Your task to perform on an android device: When is my next appointment? Image 0: 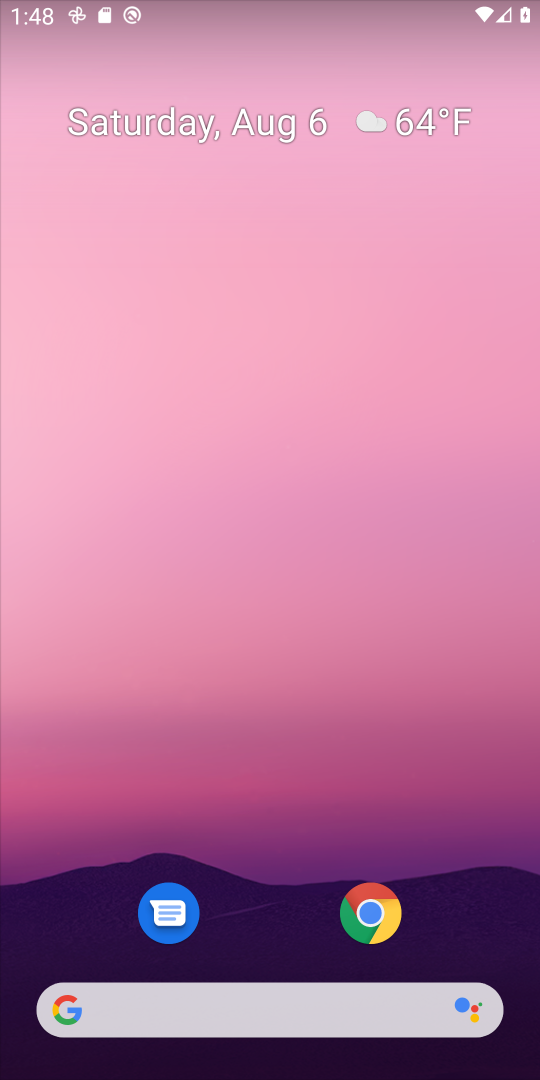
Step 0: press home button
Your task to perform on an android device: When is my next appointment? Image 1: 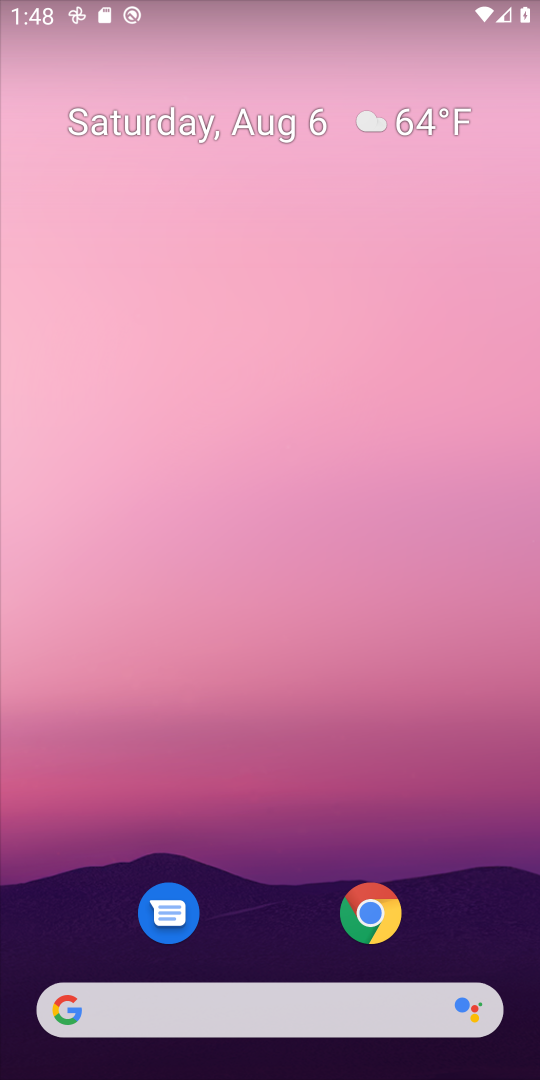
Step 1: drag from (285, 927) to (318, 284)
Your task to perform on an android device: When is my next appointment? Image 2: 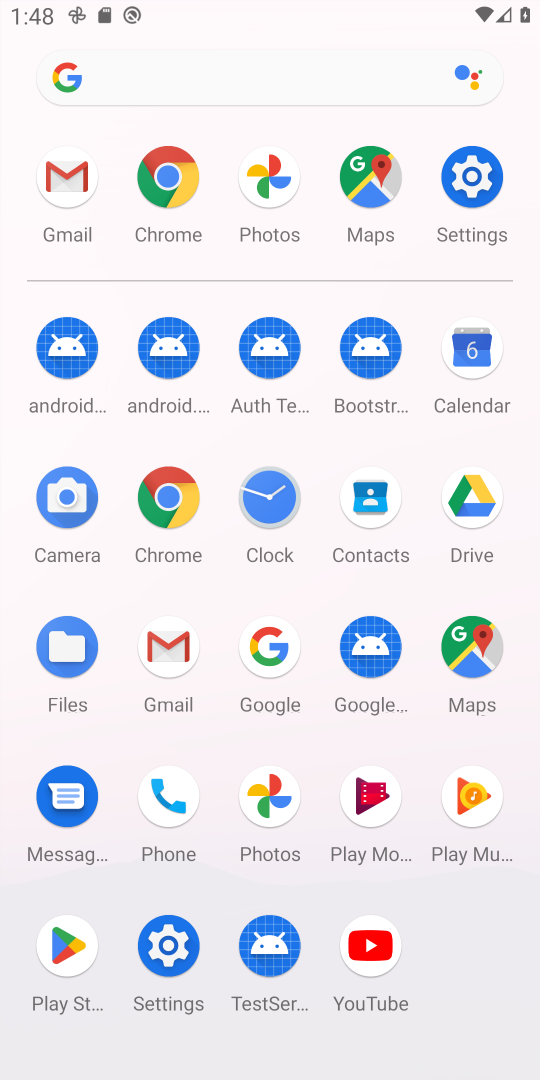
Step 2: click (476, 350)
Your task to perform on an android device: When is my next appointment? Image 3: 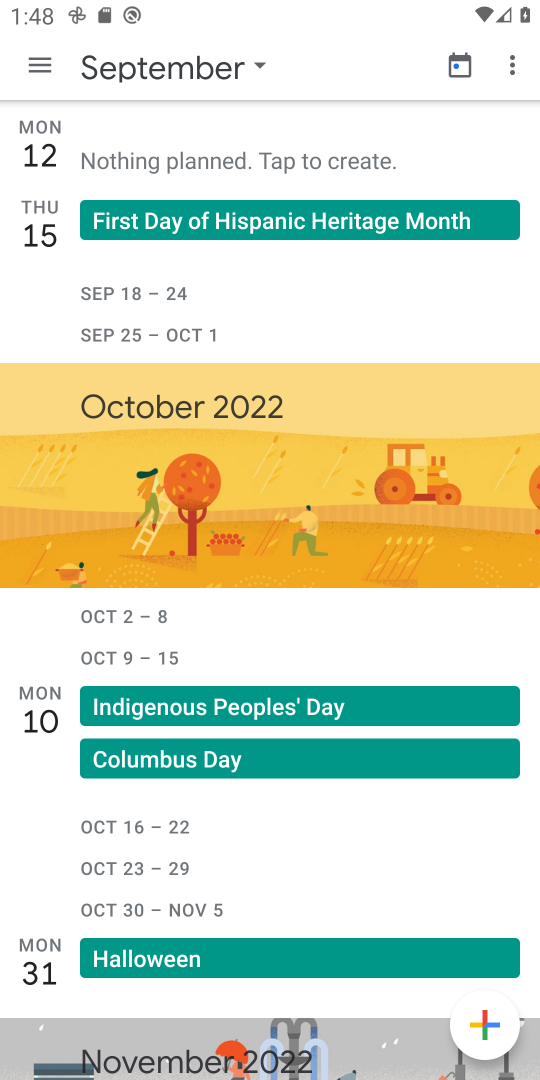
Step 3: task complete